Your task to perform on an android device: What's on my calendar today? Image 0: 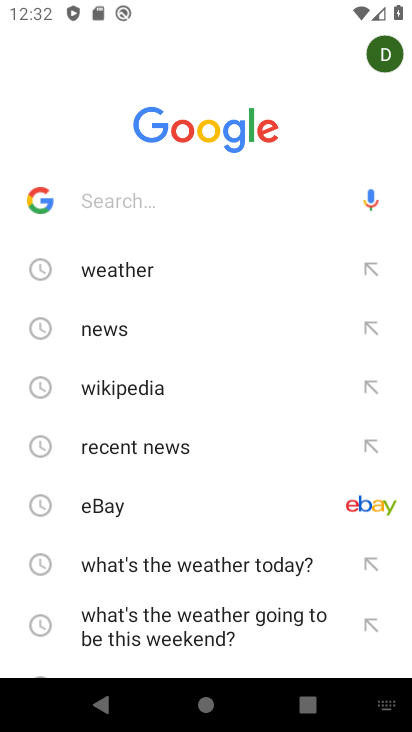
Step 0: press home button
Your task to perform on an android device: What's on my calendar today? Image 1: 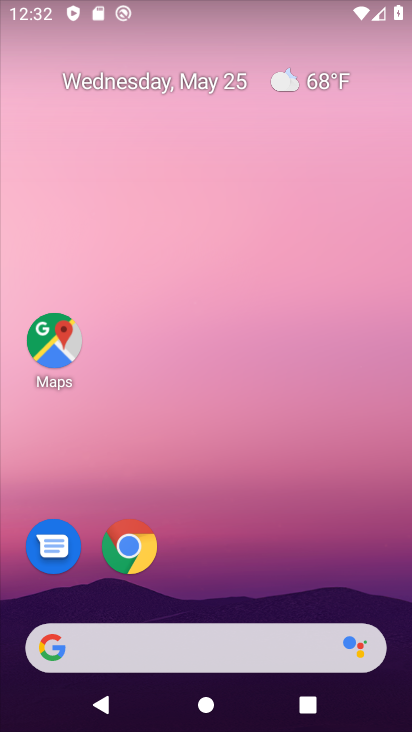
Step 1: drag from (343, 512) to (305, 141)
Your task to perform on an android device: What's on my calendar today? Image 2: 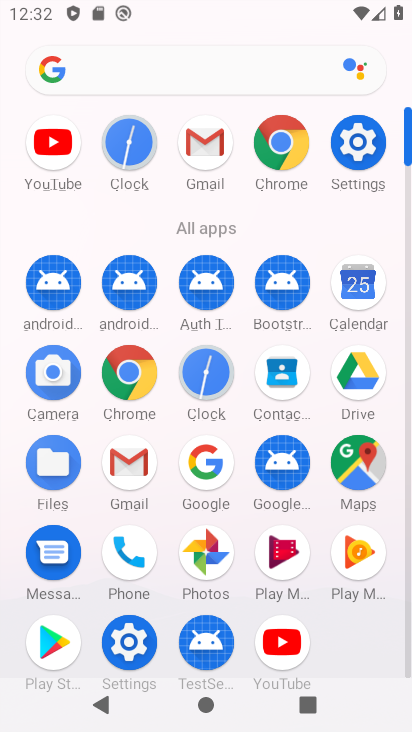
Step 2: click (382, 294)
Your task to perform on an android device: What's on my calendar today? Image 3: 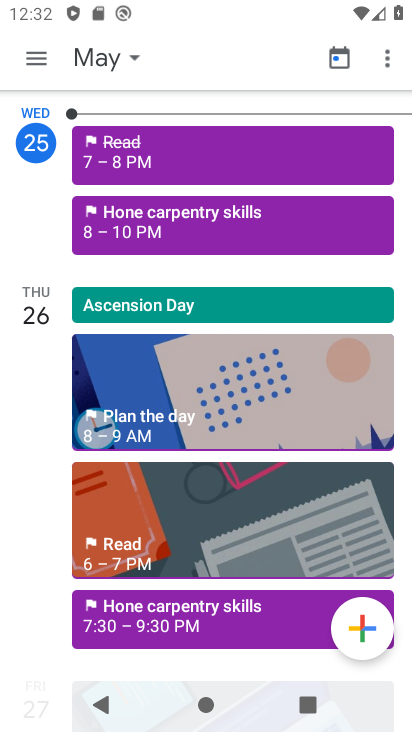
Step 3: task complete